Your task to perform on an android device: Go to location settings Image 0: 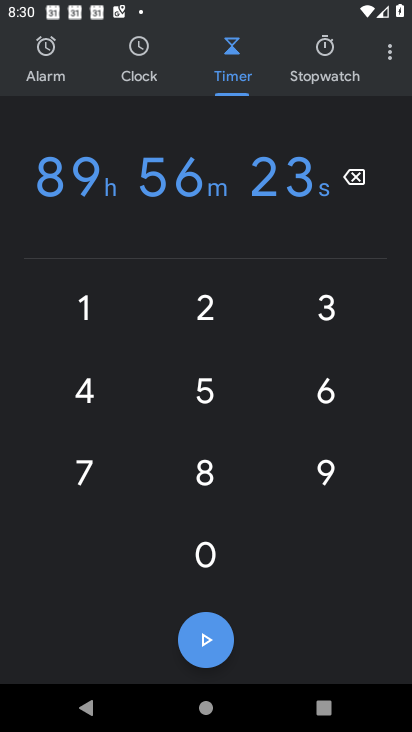
Step 0: press home button
Your task to perform on an android device: Go to location settings Image 1: 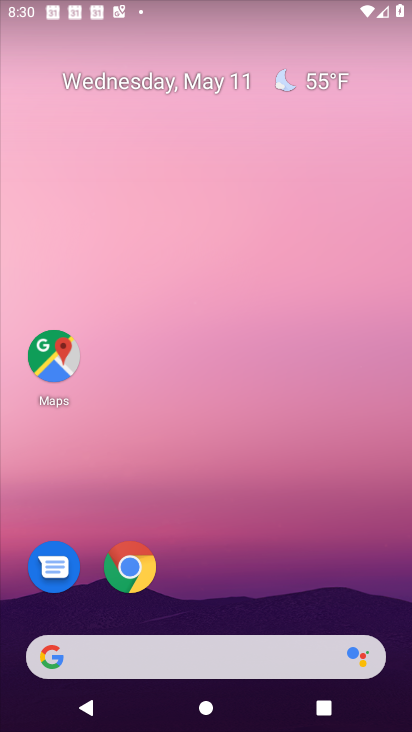
Step 1: drag from (227, 636) to (207, 15)
Your task to perform on an android device: Go to location settings Image 2: 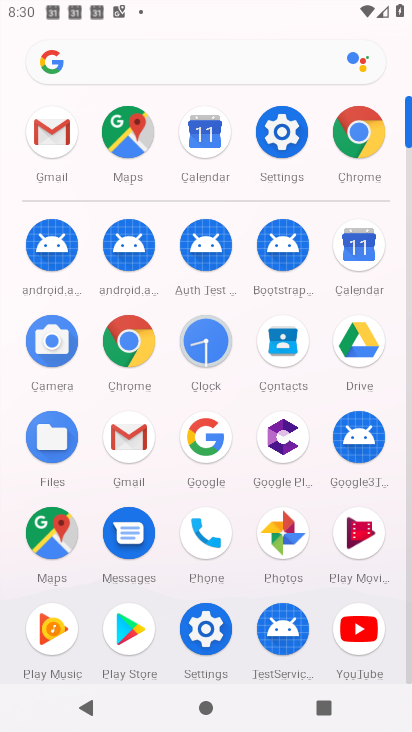
Step 2: click (307, 136)
Your task to perform on an android device: Go to location settings Image 3: 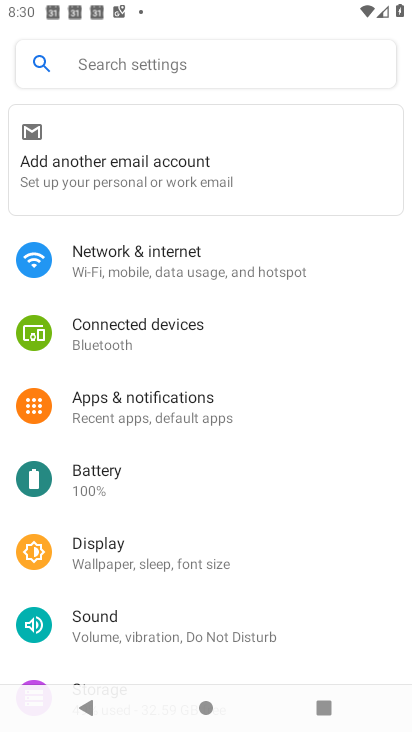
Step 3: drag from (179, 590) to (178, 289)
Your task to perform on an android device: Go to location settings Image 4: 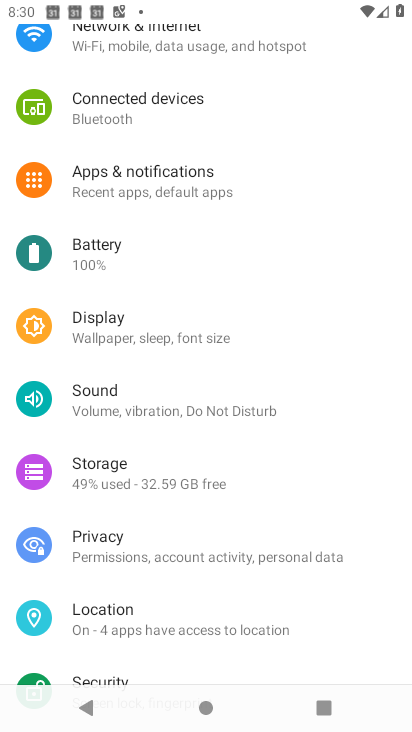
Step 4: click (148, 608)
Your task to perform on an android device: Go to location settings Image 5: 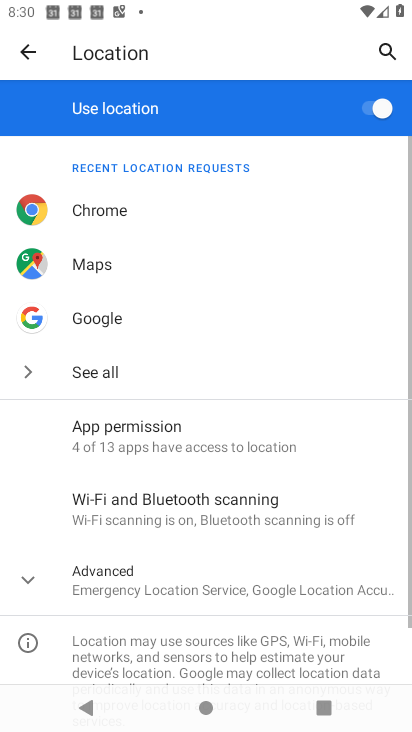
Step 5: task complete